Your task to perform on an android device: Toggle the flashlight Image 0: 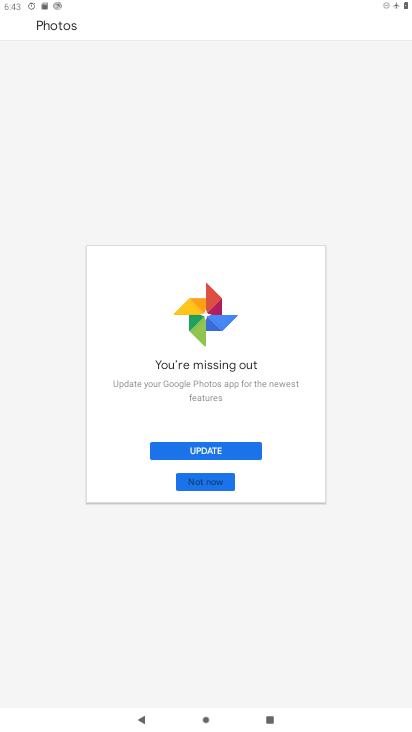
Step 0: press home button
Your task to perform on an android device: Toggle the flashlight Image 1: 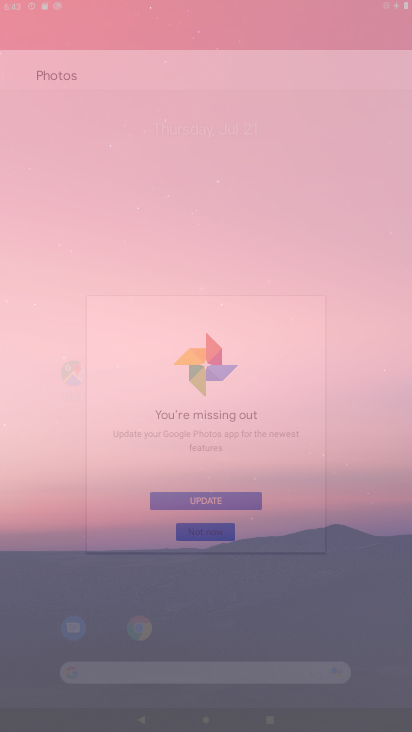
Step 1: drag from (373, 678) to (222, 46)
Your task to perform on an android device: Toggle the flashlight Image 2: 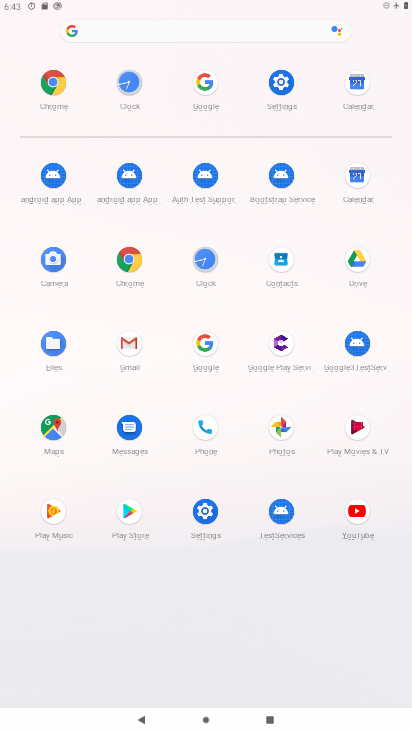
Step 2: click (206, 510)
Your task to perform on an android device: Toggle the flashlight Image 3: 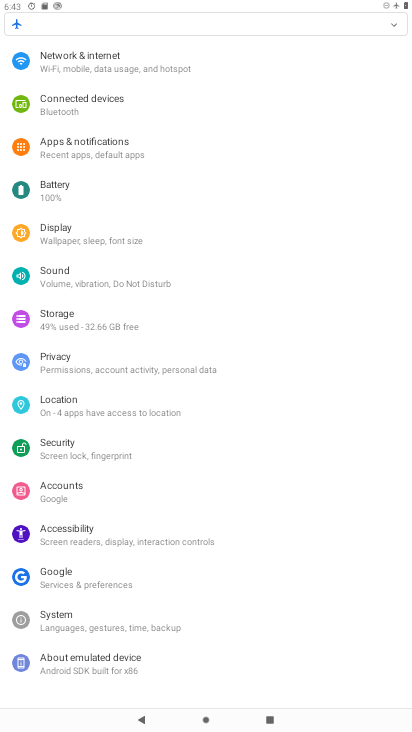
Step 3: task complete